Your task to perform on an android device: Open the map Image 0: 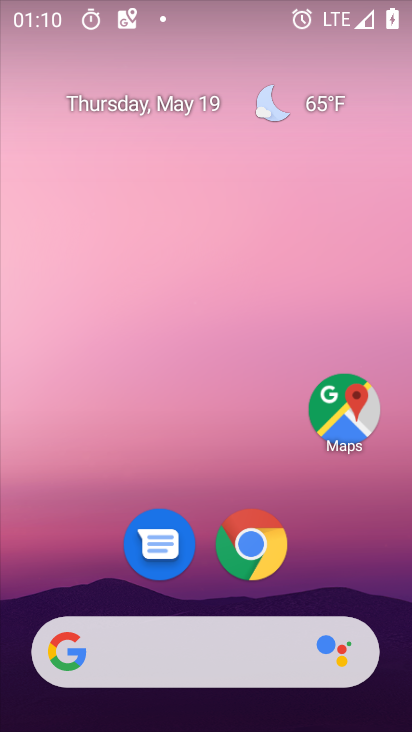
Step 0: drag from (377, 586) to (375, 150)
Your task to perform on an android device: Open the map Image 1: 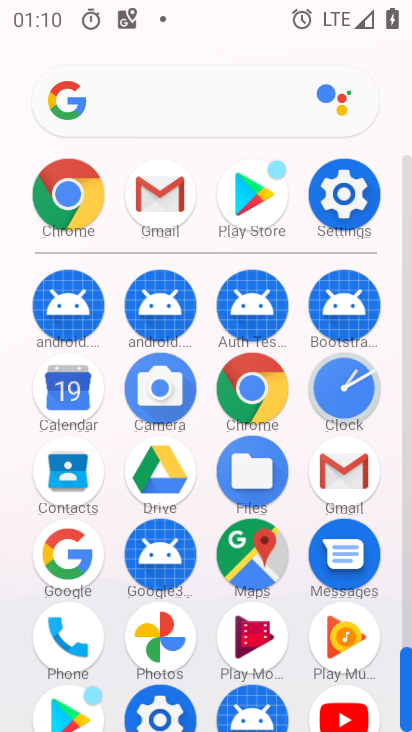
Step 1: click (258, 550)
Your task to perform on an android device: Open the map Image 2: 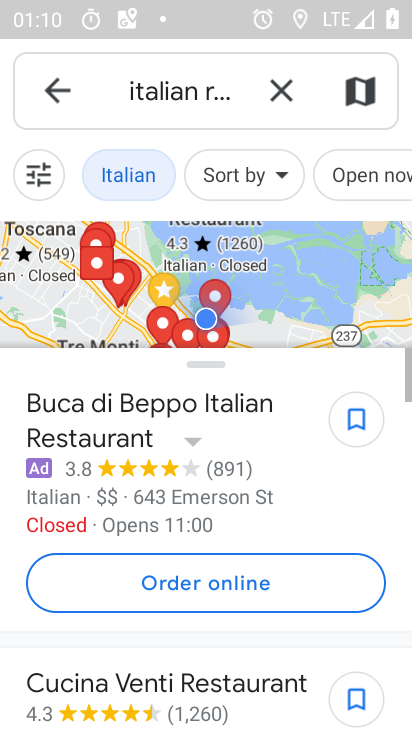
Step 2: task complete